Your task to perform on an android device: turn off wifi Image 0: 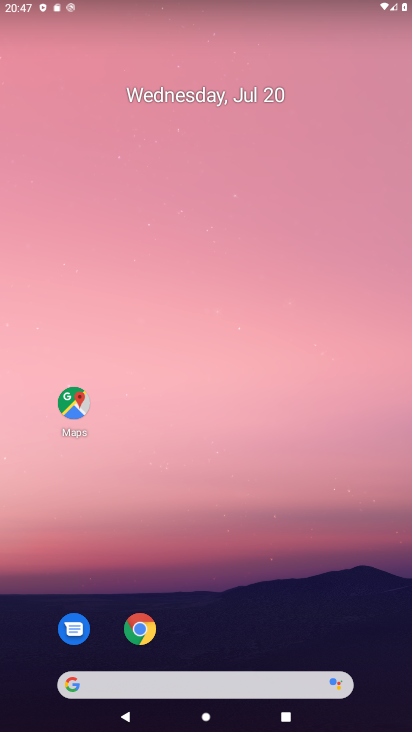
Step 0: drag from (228, 628) to (195, 114)
Your task to perform on an android device: turn off wifi Image 1: 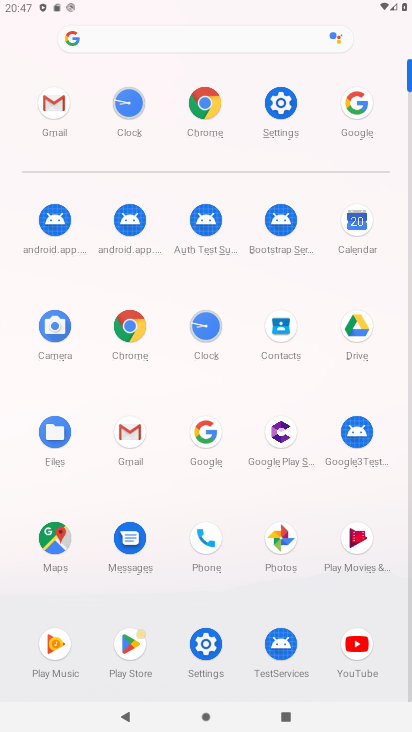
Step 1: click (289, 121)
Your task to perform on an android device: turn off wifi Image 2: 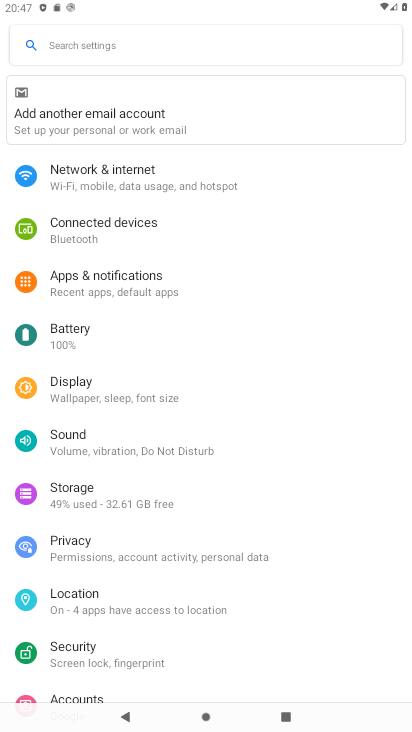
Step 2: click (122, 176)
Your task to perform on an android device: turn off wifi Image 3: 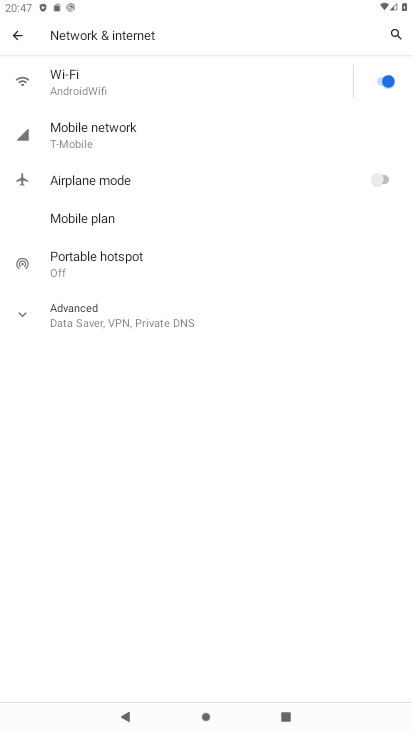
Step 3: click (372, 72)
Your task to perform on an android device: turn off wifi Image 4: 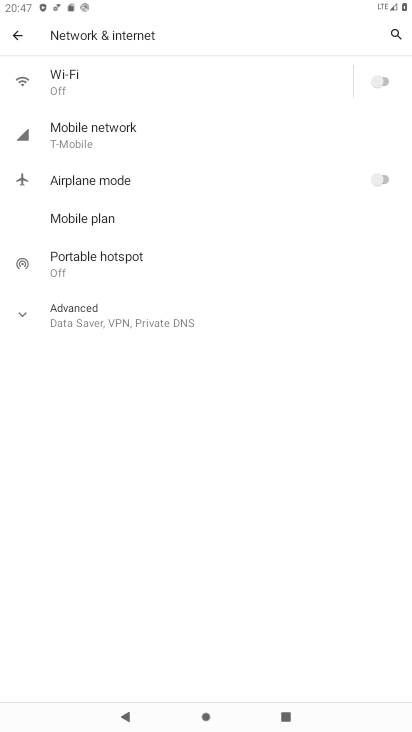
Step 4: task complete